Your task to perform on an android device: turn smart compose on in the gmail app Image 0: 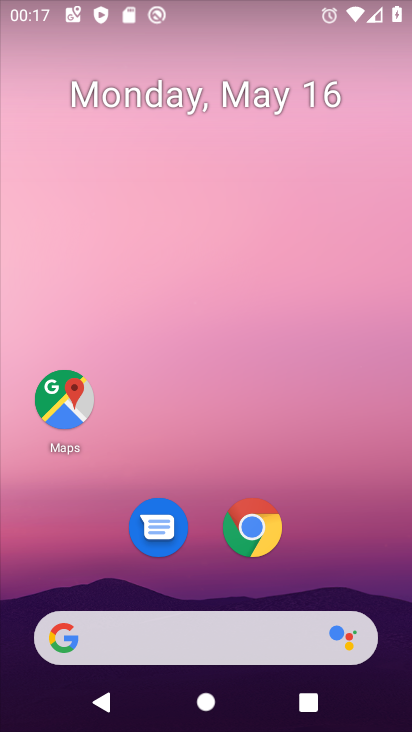
Step 0: drag from (335, 528) to (355, 114)
Your task to perform on an android device: turn smart compose on in the gmail app Image 1: 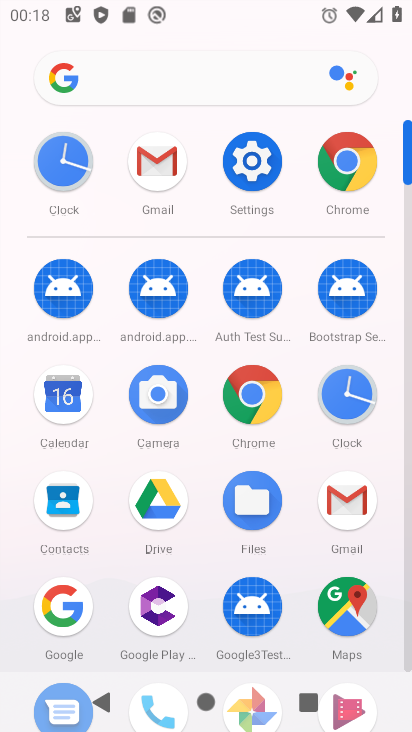
Step 1: click (179, 186)
Your task to perform on an android device: turn smart compose on in the gmail app Image 2: 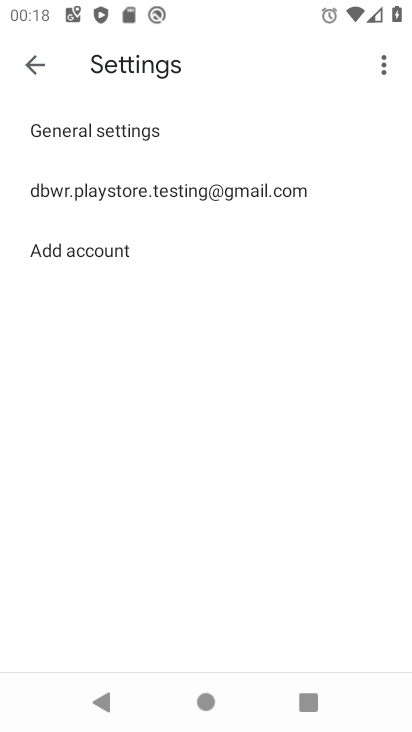
Step 2: click (120, 184)
Your task to perform on an android device: turn smart compose on in the gmail app Image 3: 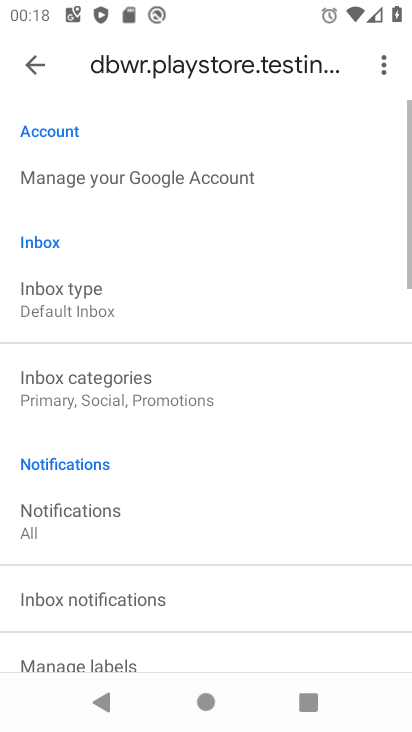
Step 3: task complete